Your task to perform on an android device: What's the weather going to be this weekend? Image 0: 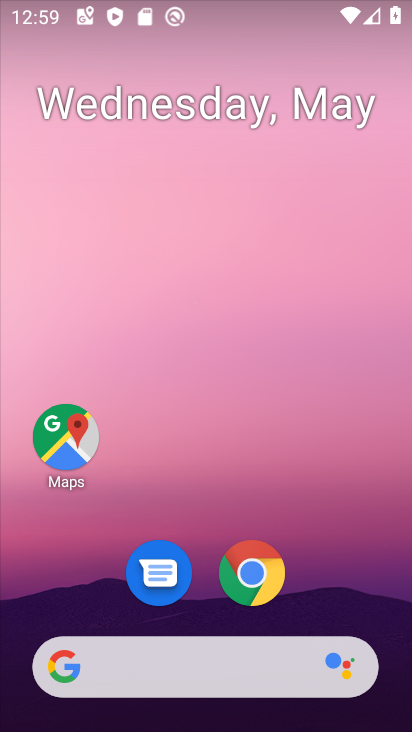
Step 0: drag from (0, 307) to (390, 237)
Your task to perform on an android device: What's the weather going to be this weekend? Image 1: 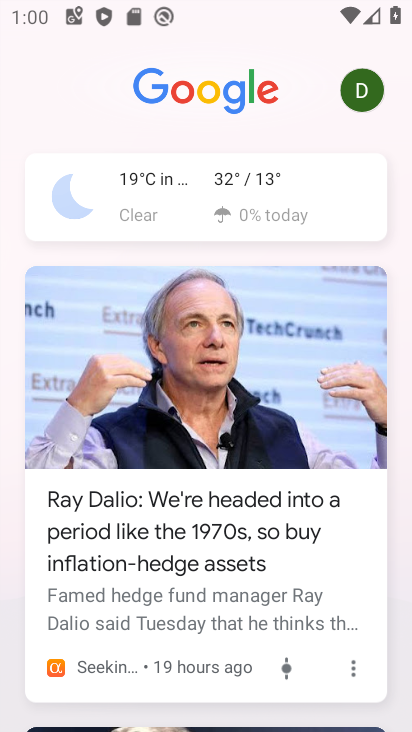
Step 1: click (257, 209)
Your task to perform on an android device: What's the weather going to be this weekend? Image 2: 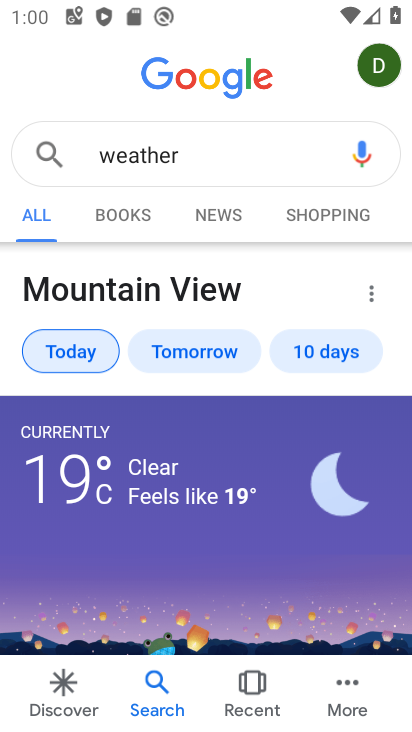
Step 2: click (362, 364)
Your task to perform on an android device: What's the weather going to be this weekend? Image 3: 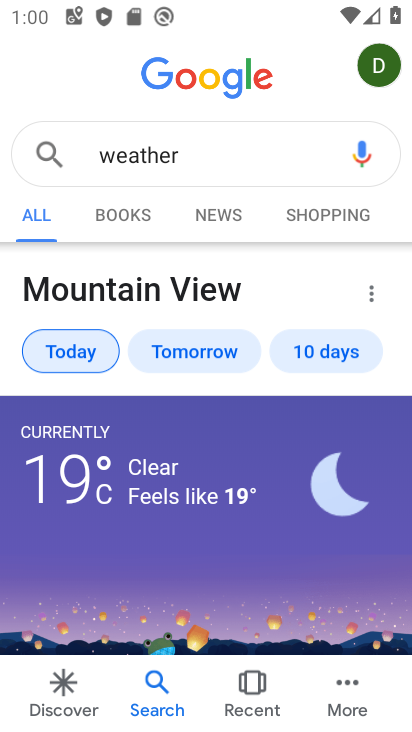
Step 3: drag from (182, 605) to (291, 200)
Your task to perform on an android device: What's the weather going to be this weekend? Image 4: 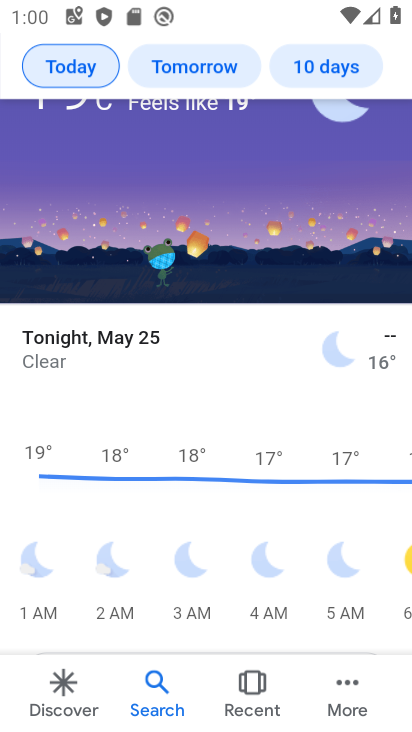
Step 4: drag from (182, 596) to (286, 239)
Your task to perform on an android device: What's the weather going to be this weekend? Image 5: 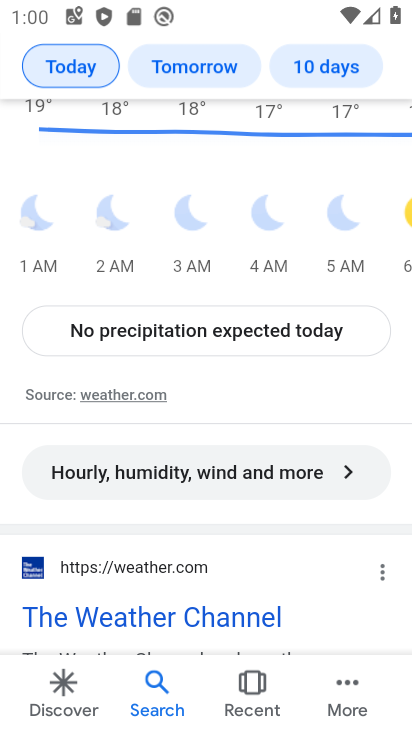
Step 5: drag from (181, 572) to (221, 347)
Your task to perform on an android device: What's the weather going to be this weekend? Image 6: 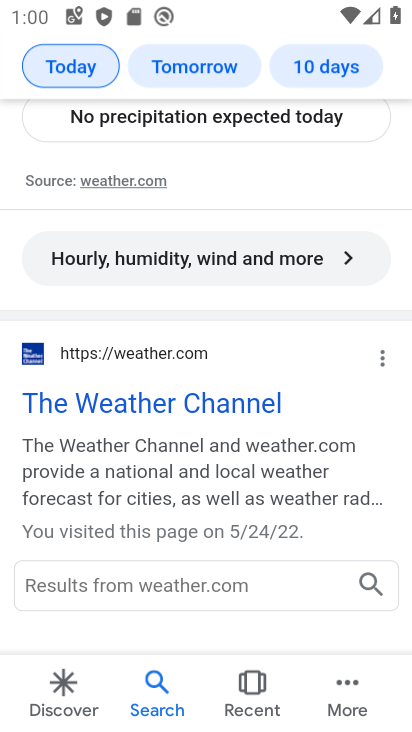
Step 6: click (185, 411)
Your task to perform on an android device: What's the weather going to be this weekend? Image 7: 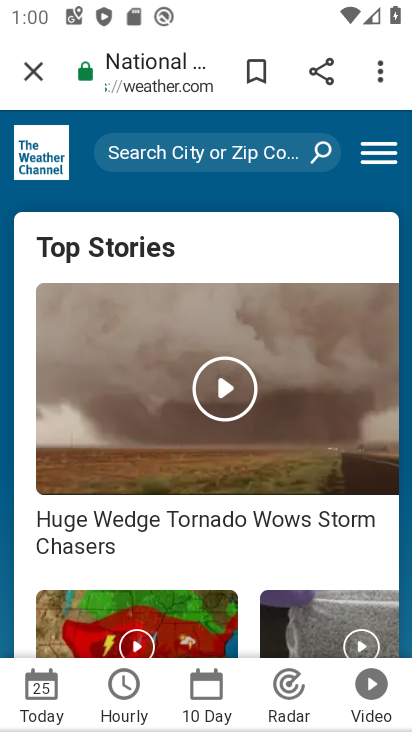
Step 7: click (205, 719)
Your task to perform on an android device: What's the weather going to be this weekend? Image 8: 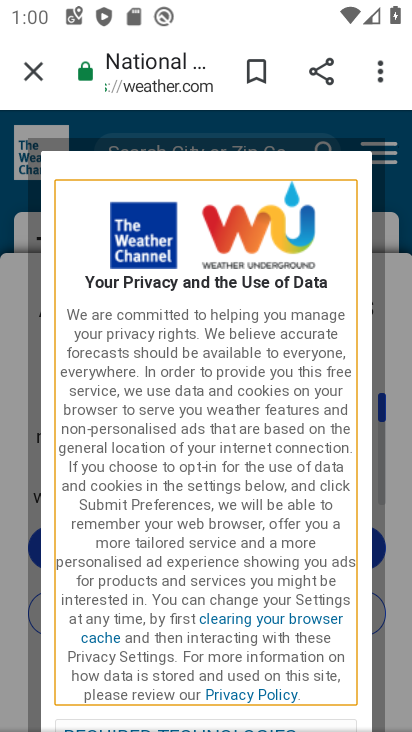
Step 8: drag from (271, 530) to (313, 301)
Your task to perform on an android device: What's the weather going to be this weekend? Image 9: 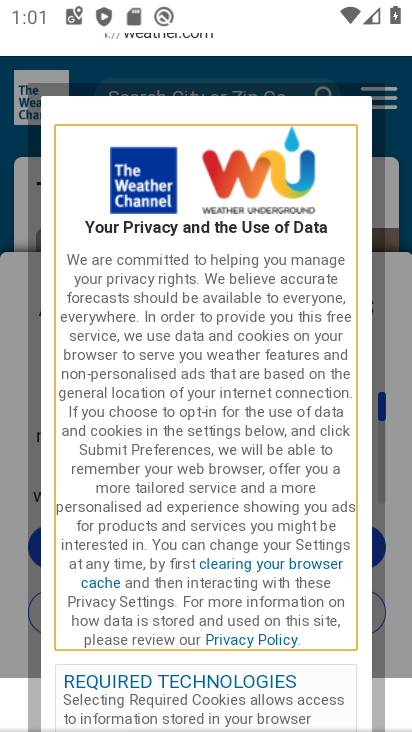
Step 9: drag from (185, 644) to (268, 222)
Your task to perform on an android device: What's the weather going to be this weekend? Image 10: 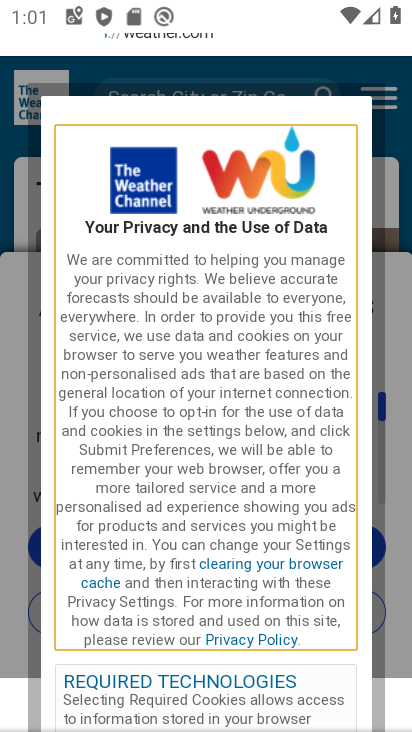
Step 10: drag from (171, 597) to (229, 237)
Your task to perform on an android device: What's the weather going to be this weekend? Image 11: 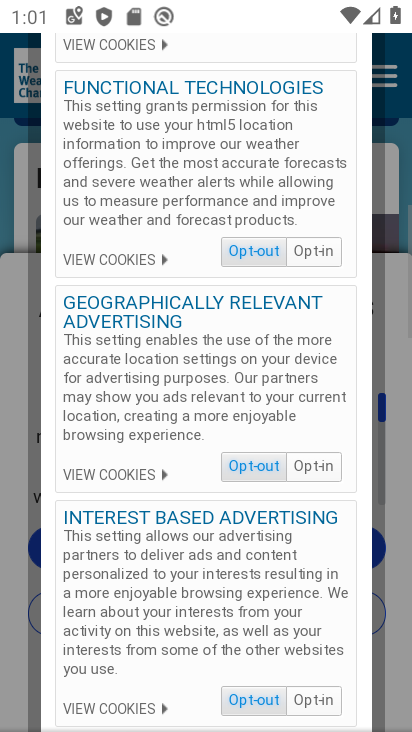
Step 11: drag from (152, 549) to (218, 250)
Your task to perform on an android device: What's the weather going to be this weekend? Image 12: 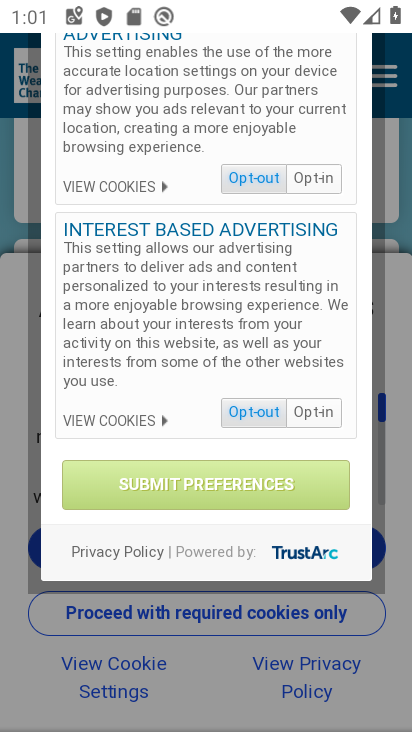
Step 12: click (217, 495)
Your task to perform on an android device: What's the weather going to be this weekend? Image 13: 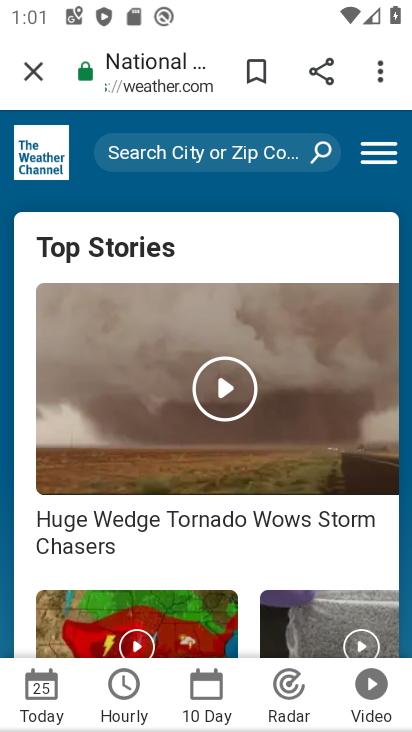
Step 13: click (207, 701)
Your task to perform on an android device: What's the weather going to be this weekend? Image 14: 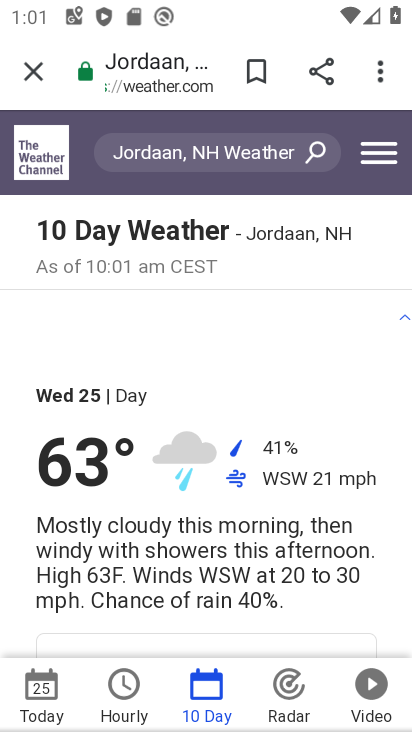
Step 14: click (199, 703)
Your task to perform on an android device: What's the weather going to be this weekend? Image 15: 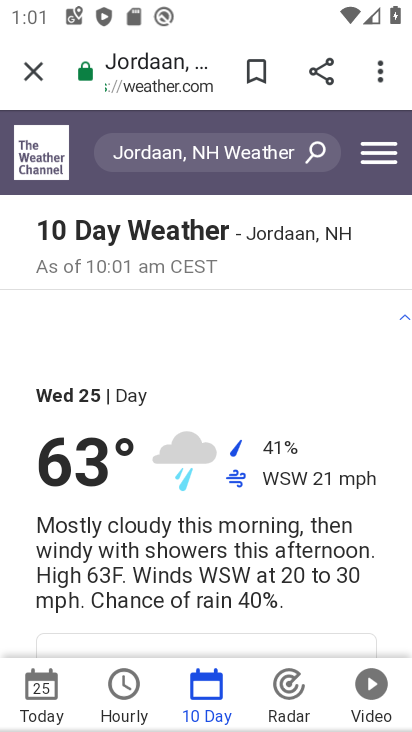
Step 15: task complete